Your task to perform on an android device: Open Maps and search for coffee Image 0: 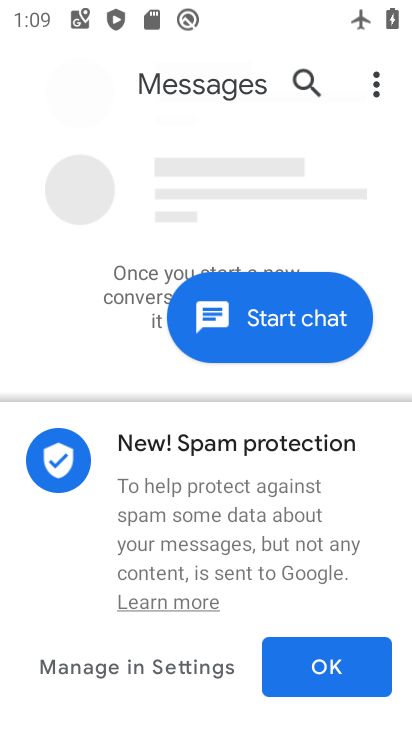
Step 0: press home button
Your task to perform on an android device: Open Maps and search for coffee Image 1: 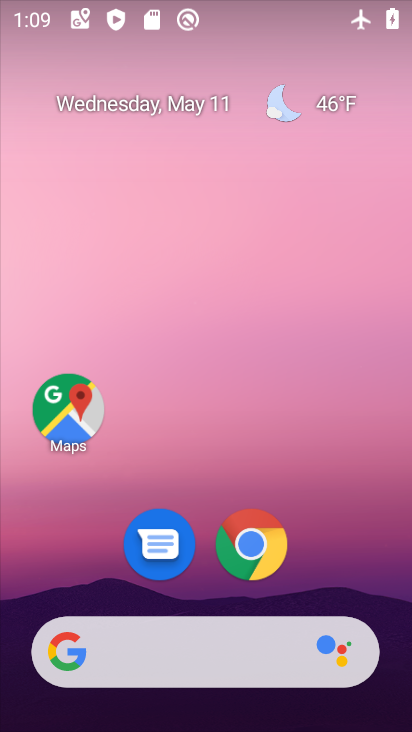
Step 1: click (69, 408)
Your task to perform on an android device: Open Maps and search for coffee Image 2: 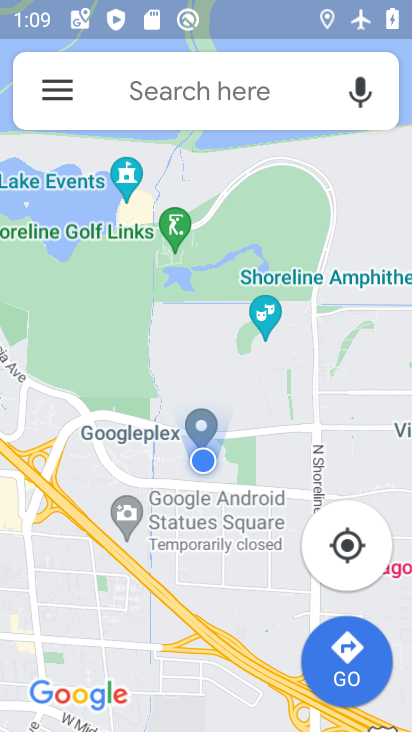
Step 2: click (148, 82)
Your task to perform on an android device: Open Maps and search for coffee Image 3: 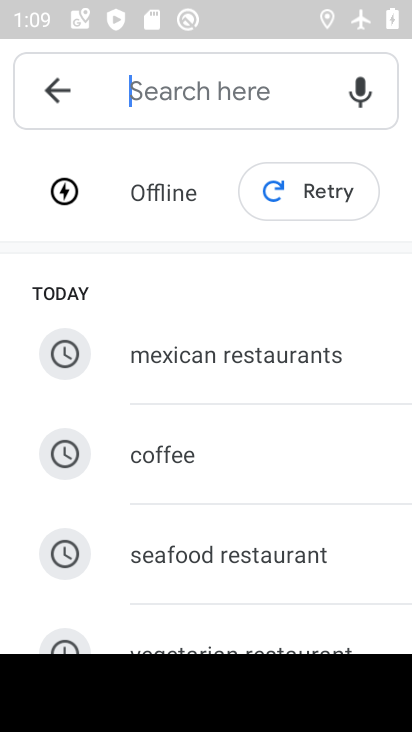
Step 3: type "coffee"
Your task to perform on an android device: Open Maps and search for coffee Image 4: 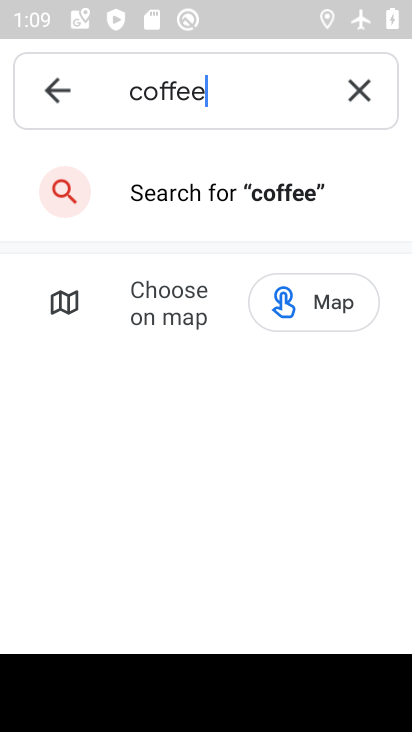
Step 4: task complete